Your task to perform on an android device: Open Reddit.com Image 0: 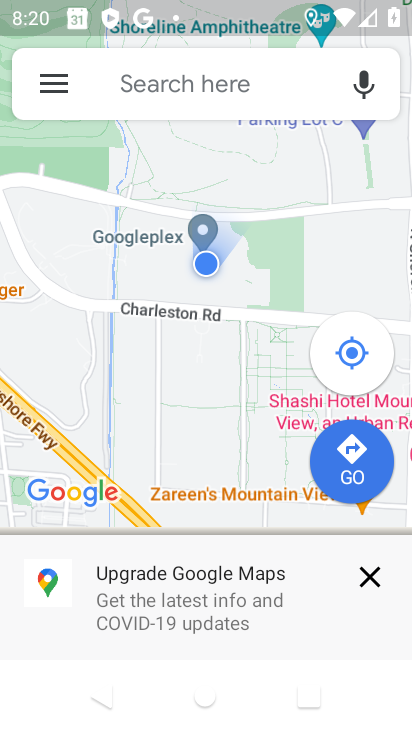
Step 0: press back button
Your task to perform on an android device: Open Reddit.com Image 1: 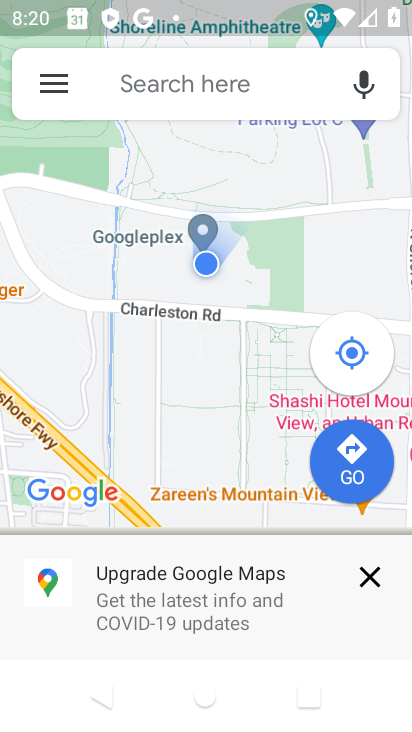
Step 1: press back button
Your task to perform on an android device: Open Reddit.com Image 2: 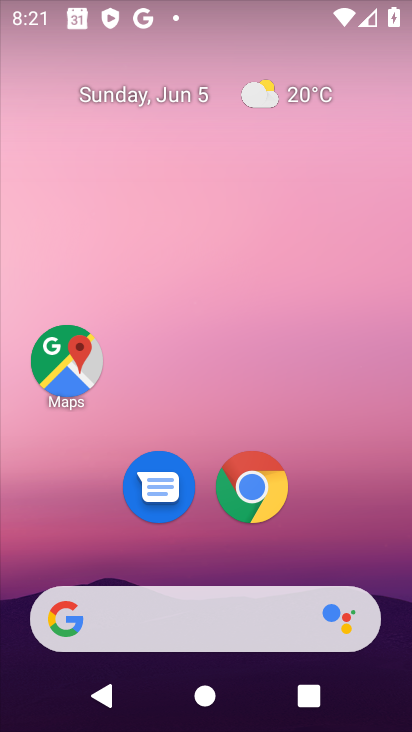
Step 2: click (218, 487)
Your task to perform on an android device: Open Reddit.com Image 3: 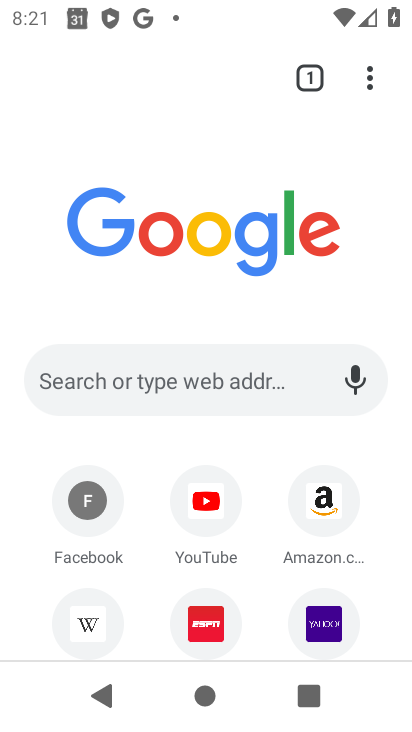
Step 3: click (132, 366)
Your task to perform on an android device: Open Reddit.com Image 4: 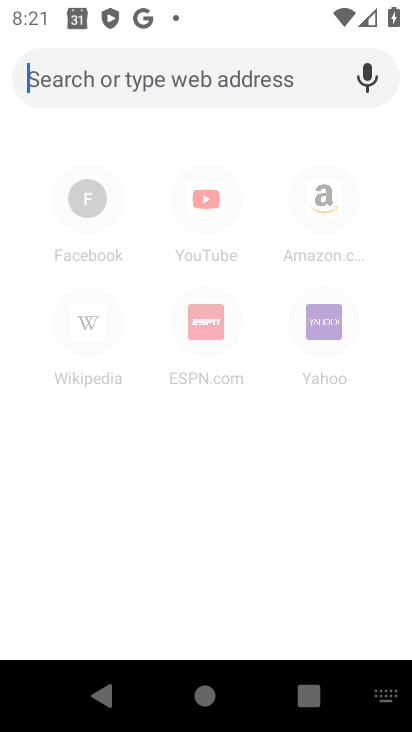
Step 4: type "reddit.com"
Your task to perform on an android device: Open Reddit.com Image 5: 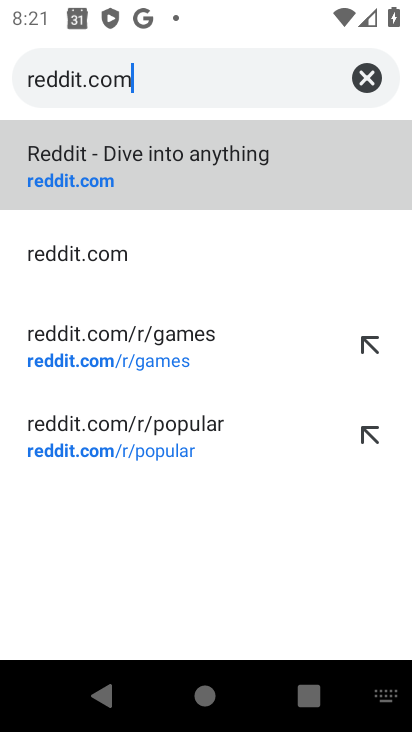
Step 5: click (158, 147)
Your task to perform on an android device: Open Reddit.com Image 6: 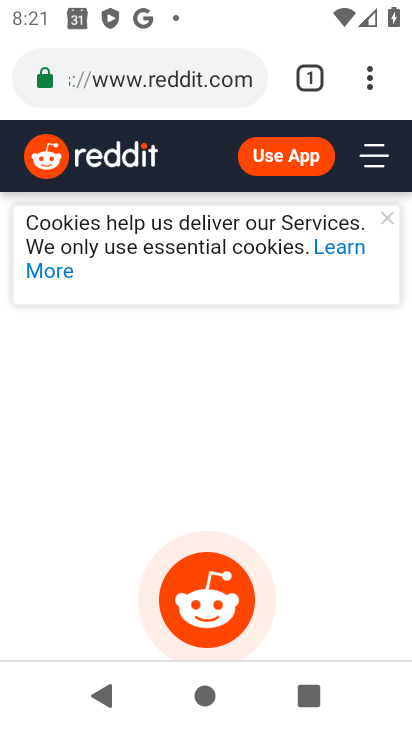
Step 6: task complete